Your task to perform on an android device: Go to Amazon Image 0: 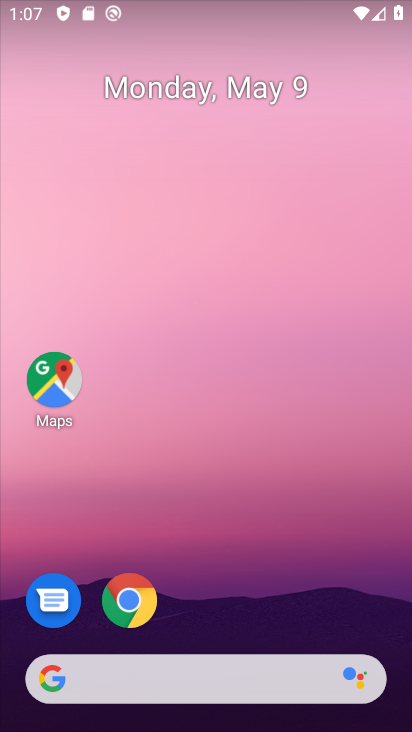
Step 0: drag from (177, 665) to (209, 200)
Your task to perform on an android device: Go to Amazon Image 1: 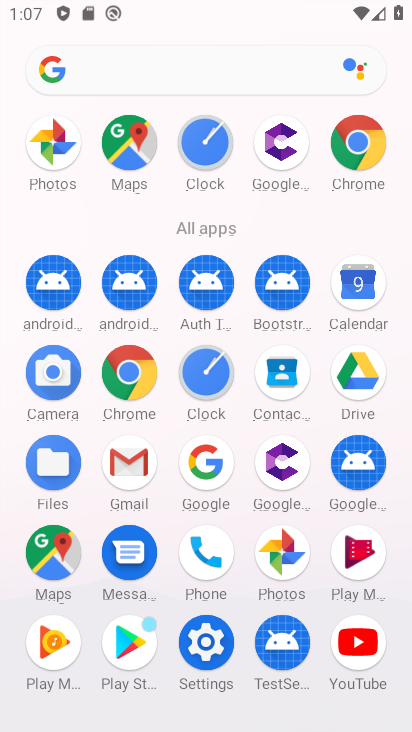
Step 1: click (362, 153)
Your task to perform on an android device: Go to Amazon Image 2: 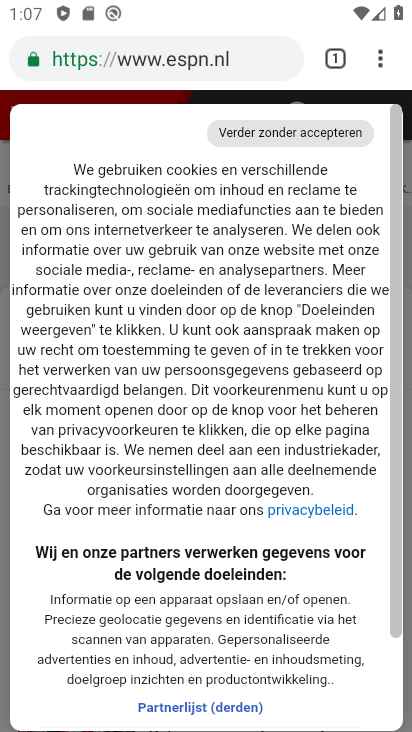
Step 2: drag from (378, 64) to (257, 108)
Your task to perform on an android device: Go to Amazon Image 3: 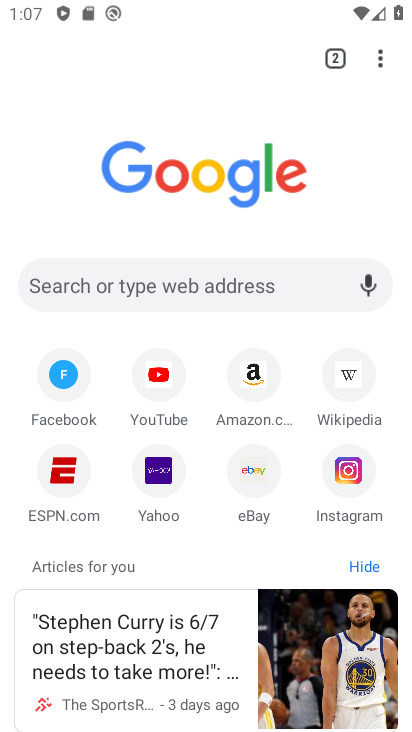
Step 3: click (260, 384)
Your task to perform on an android device: Go to Amazon Image 4: 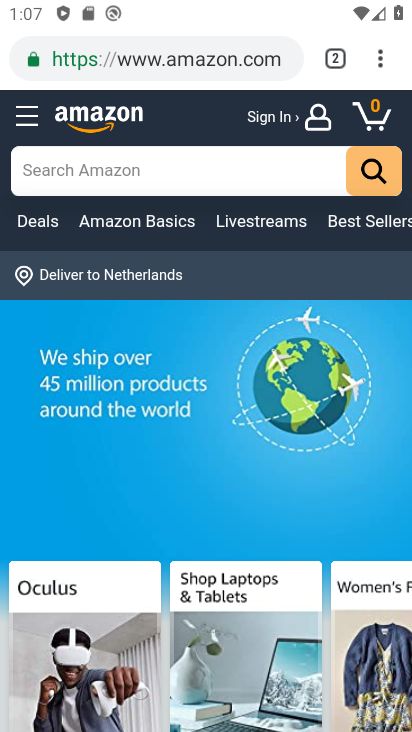
Step 4: task complete